Your task to perform on an android device: change the clock style Image 0: 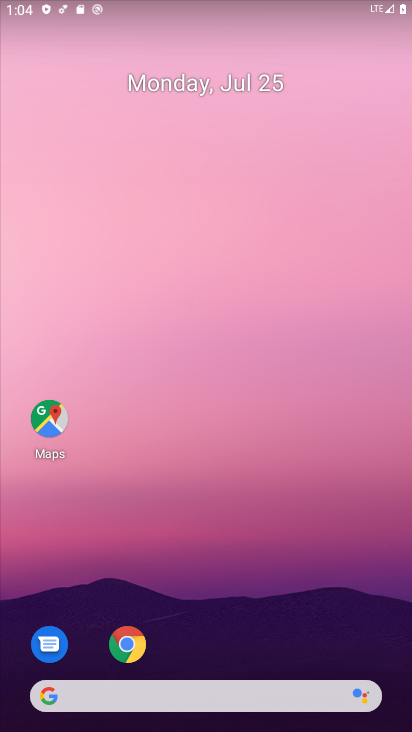
Step 0: drag from (229, 693) to (229, 342)
Your task to perform on an android device: change the clock style Image 1: 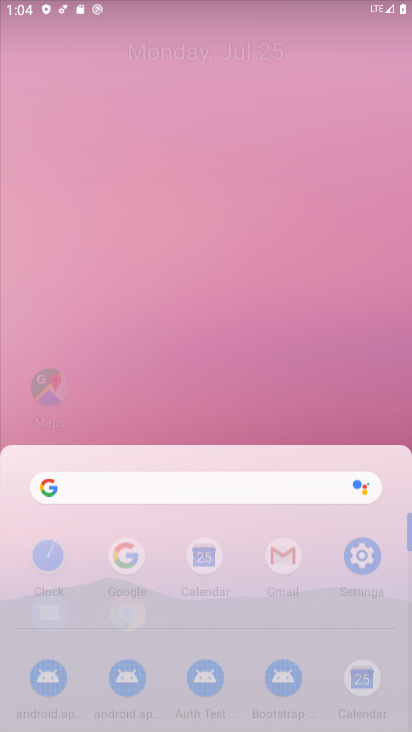
Step 1: click (229, 168)
Your task to perform on an android device: change the clock style Image 2: 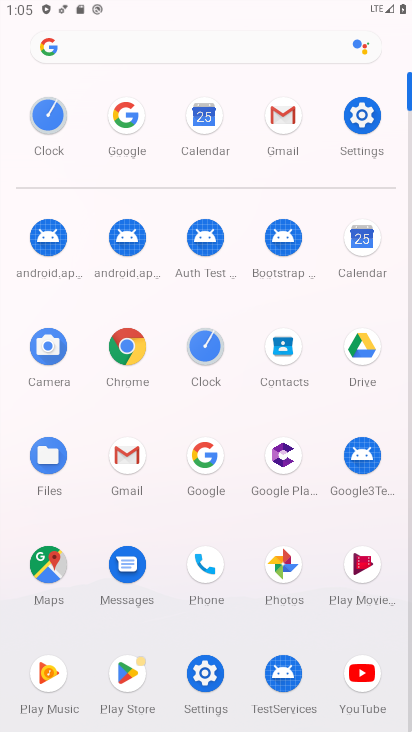
Step 2: click (200, 337)
Your task to perform on an android device: change the clock style Image 3: 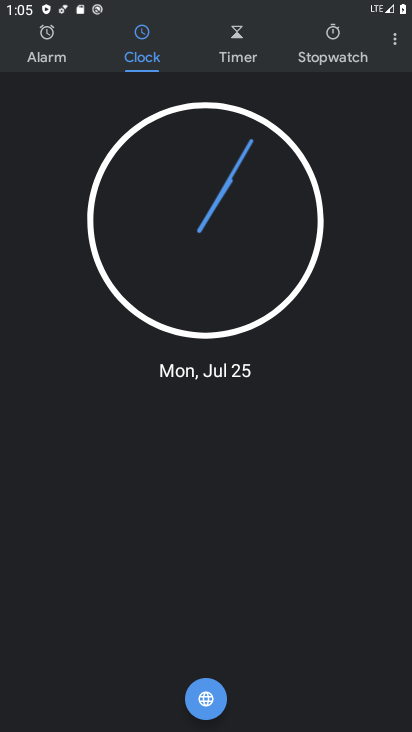
Step 3: click (396, 42)
Your task to perform on an android device: change the clock style Image 4: 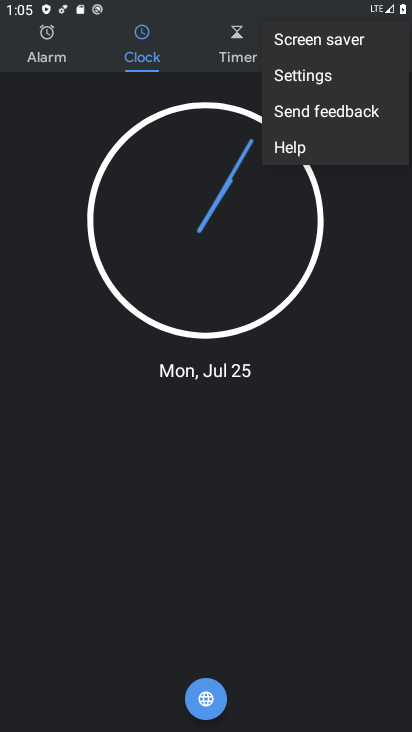
Step 4: click (307, 76)
Your task to perform on an android device: change the clock style Image 5: 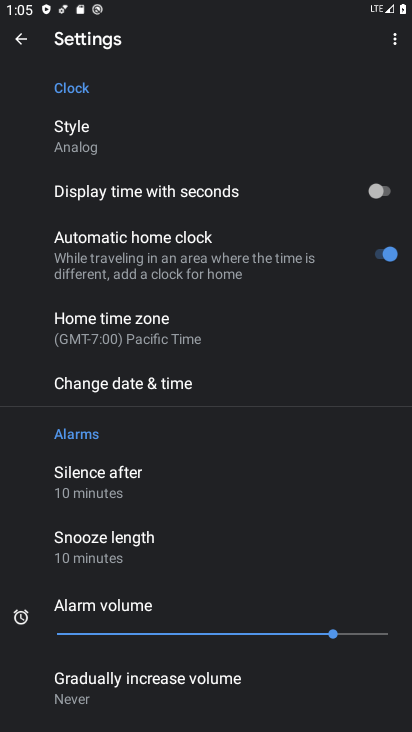
Step 5: click (73, 147)
Your task to perform on an android device: change the clock style Image 6: 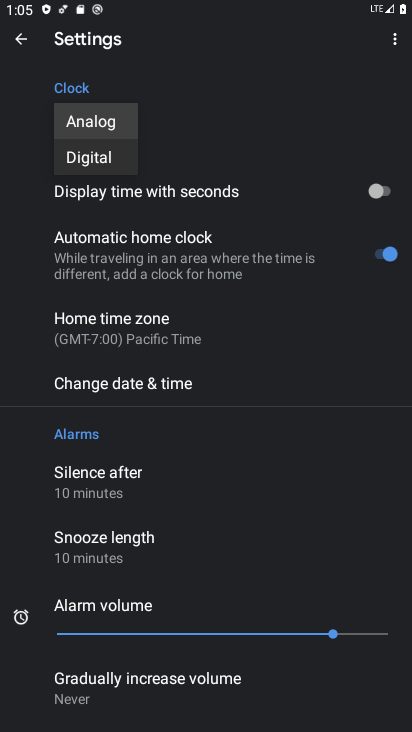
Step 6: click (79, 158)
Your task to perform on an android device: change the clock style Image 7: 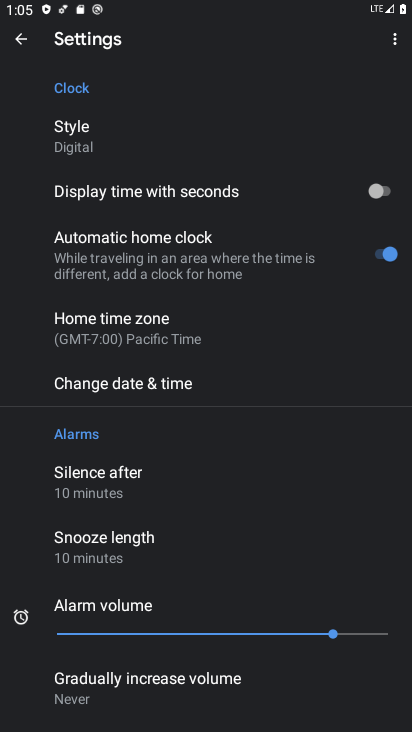
Step 7: task complete